Your task to perform on an android device: Open wifi settings Image 0: 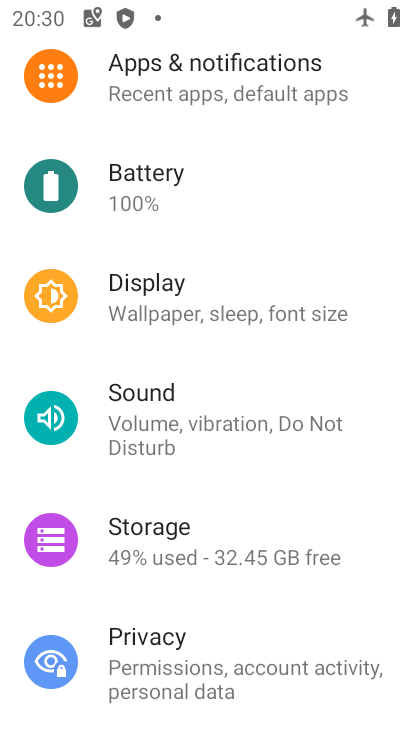
Step 0: press home button
Your task to perform on an android device: Open wifi settings Image 1: 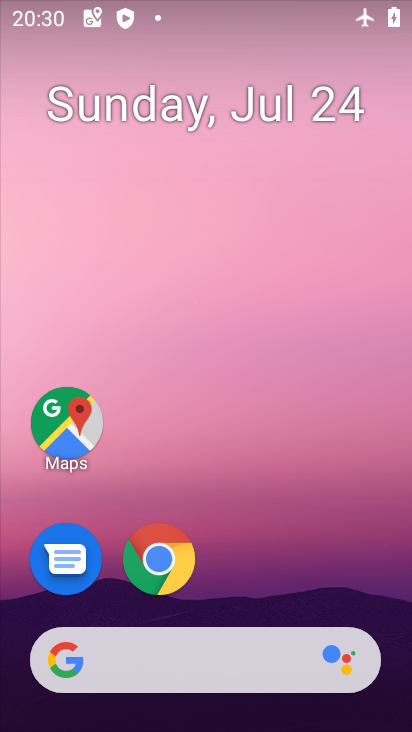
Step 1: drag from (312, 567) to (321, 62)
Your task to perform on an android device: Open wifi settings Image 2: 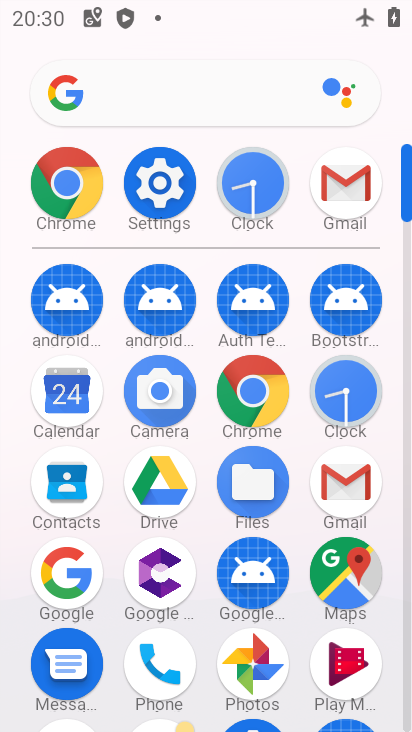
Step 2: click (167, 189)
Your task to perform on an android device: Open wifi settings Image 3: 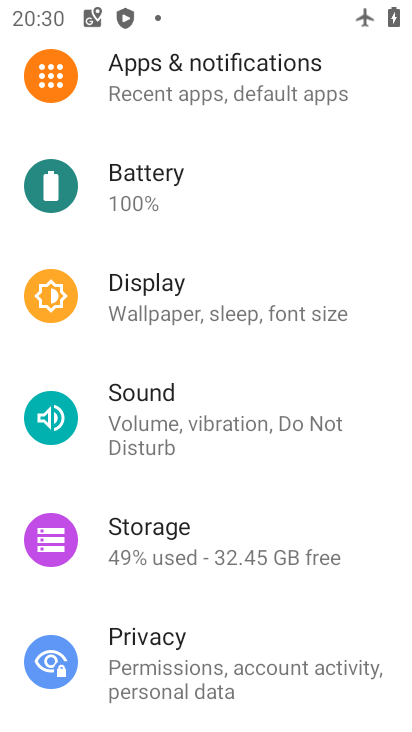
Step 3: drag from (322, 189) to (337, 291)
Your task to perform on an android device: Open wifi settings Image 4: 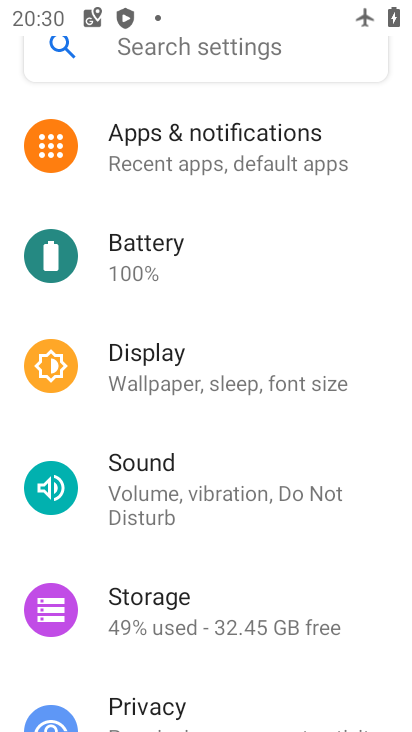
Step 4: drag from (361, 125) to (375, 286)
Your task to perform on an android device: Open wifi settings Image 5: 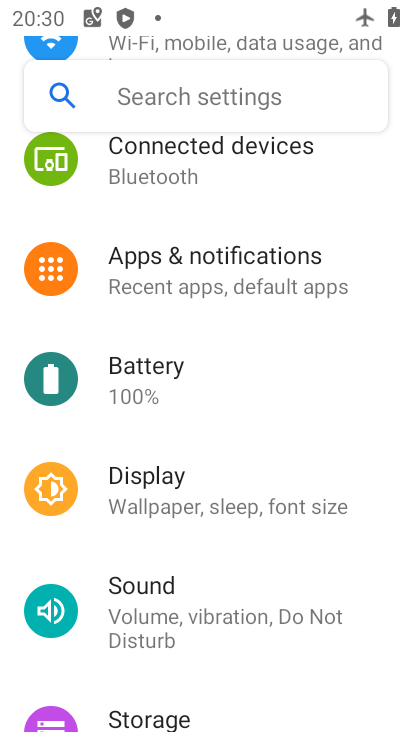
Step 5: drag from (356, 153) to (358, 266)
Your task to perform on an android device: Open wifi settings Image 6: 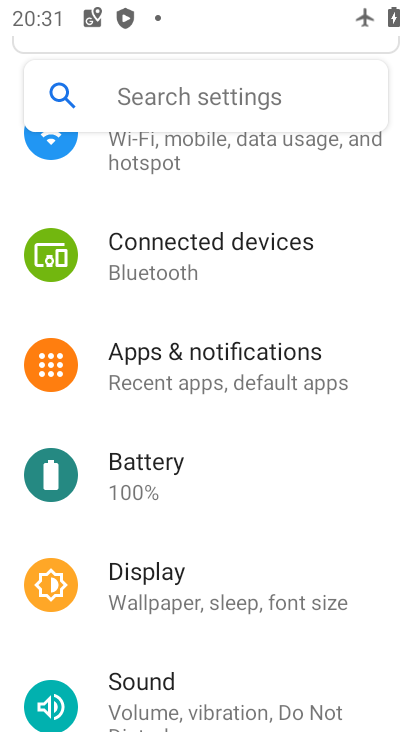
Step 6: drag from (347, 175) to (350, 299)
Your task to perform on an android device: Open wifi settings Image 7: 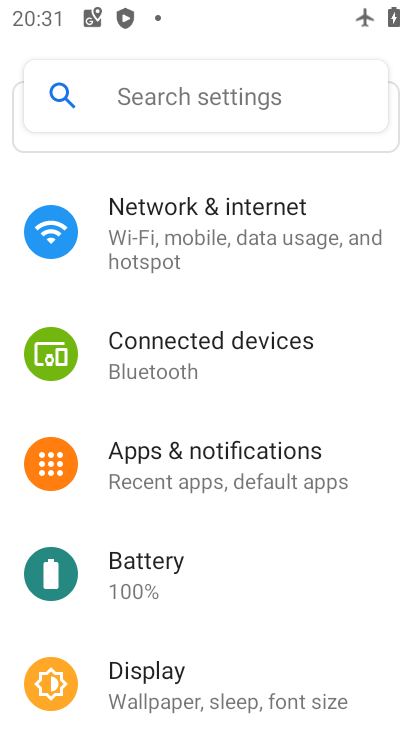
Step 7: drag from (346, 181) to (347, 381)
Your task to perform on an android device: Open wifi settings Image 8: 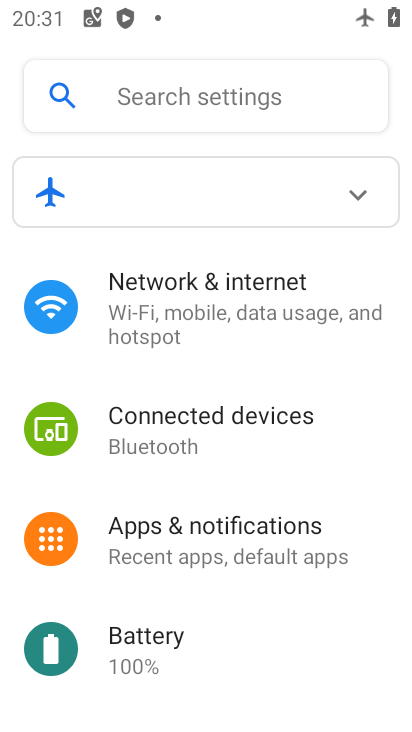
Step 8: click (310, 304)
Your task to perform on an android device: Open wifi settings Image 9: 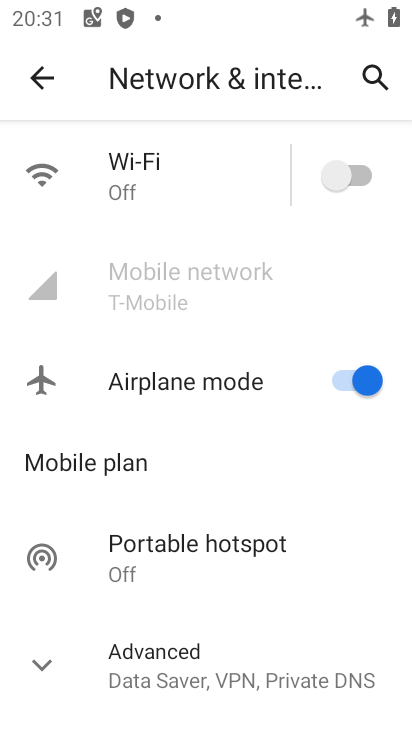
Step 9: click (182, 170)
Your task to perform on an android device: Open wifi settings Image 10: 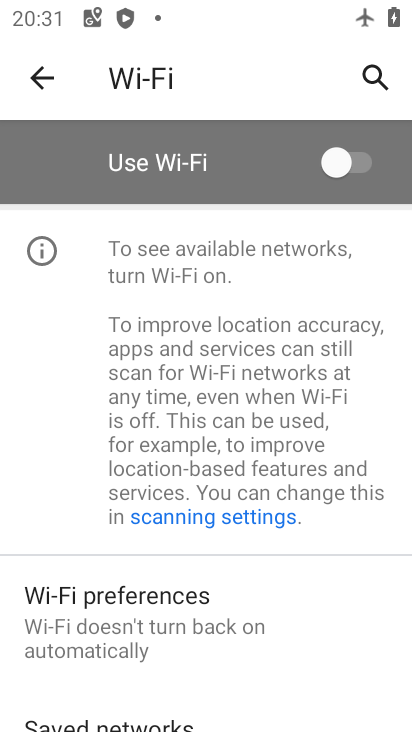
Step 10: task complete